Your task to perform on an android device: open app "Pluto TV - Live TV and Movies" (install if not already installed) and go to login screen Image 0: 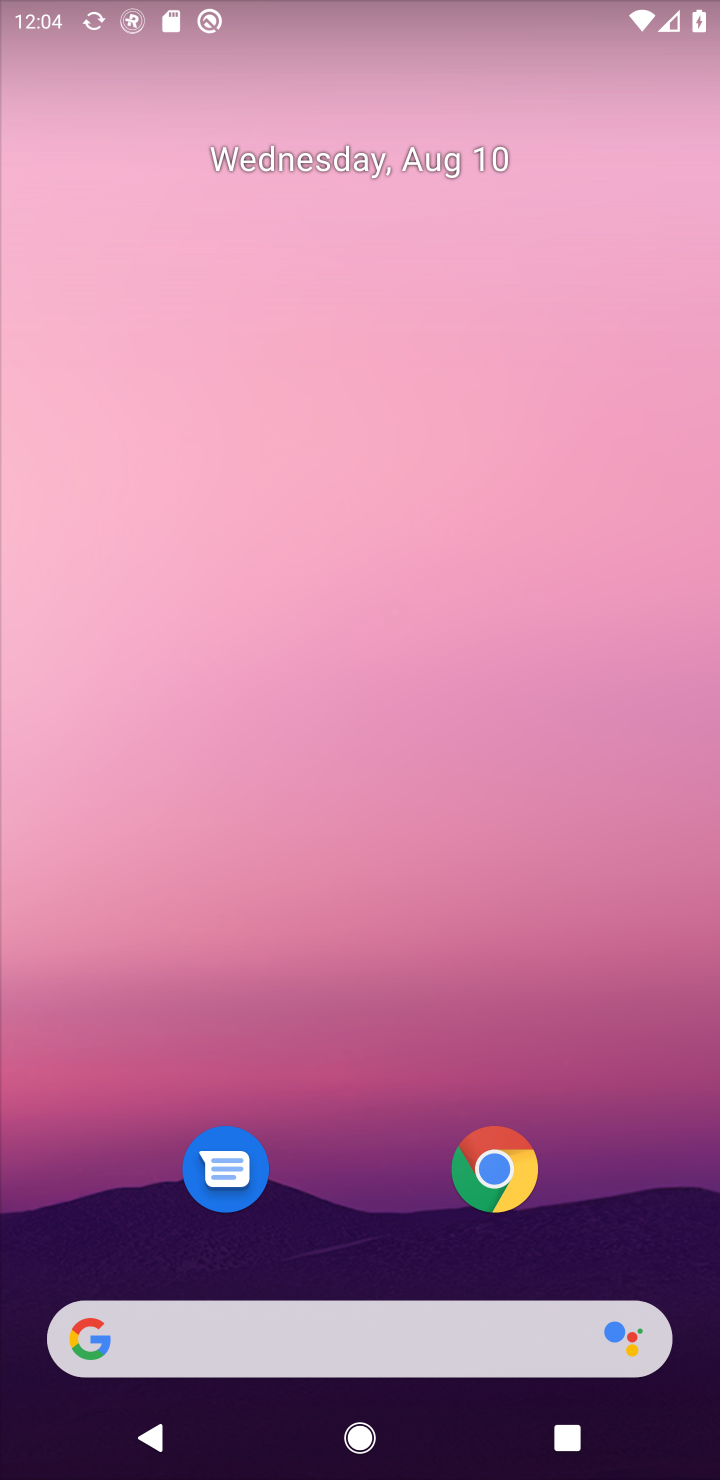
Step 0: press home button
Your task to perform on an android device: open app "Pluto TV - Live TV and Movies" (install if not already installed) and go to login screen Image 1: 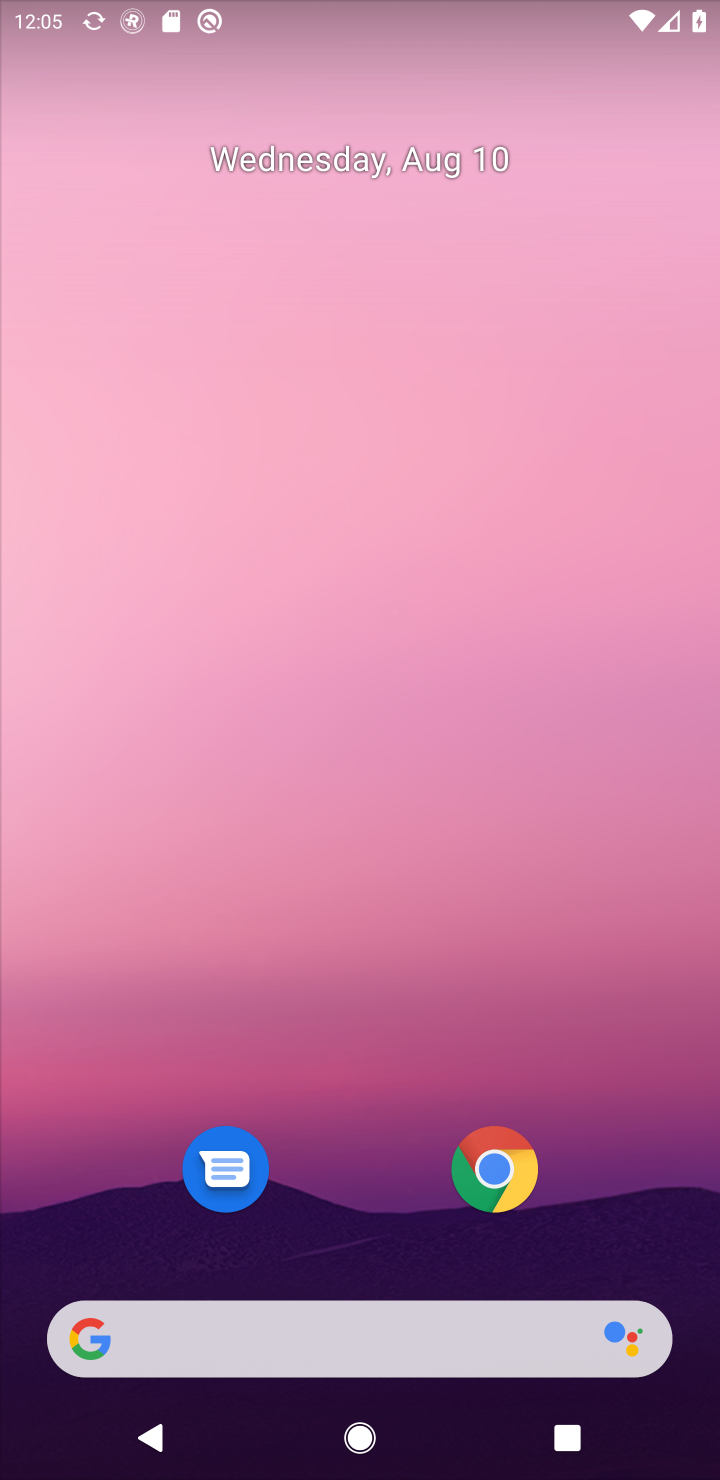
Step 1: drag from (658, 976) to (647, 121)
Your task to perform on an android device: open app "Pluto TV - Live TV and Movies" (install if not already installed) and go to login screen Image 2: 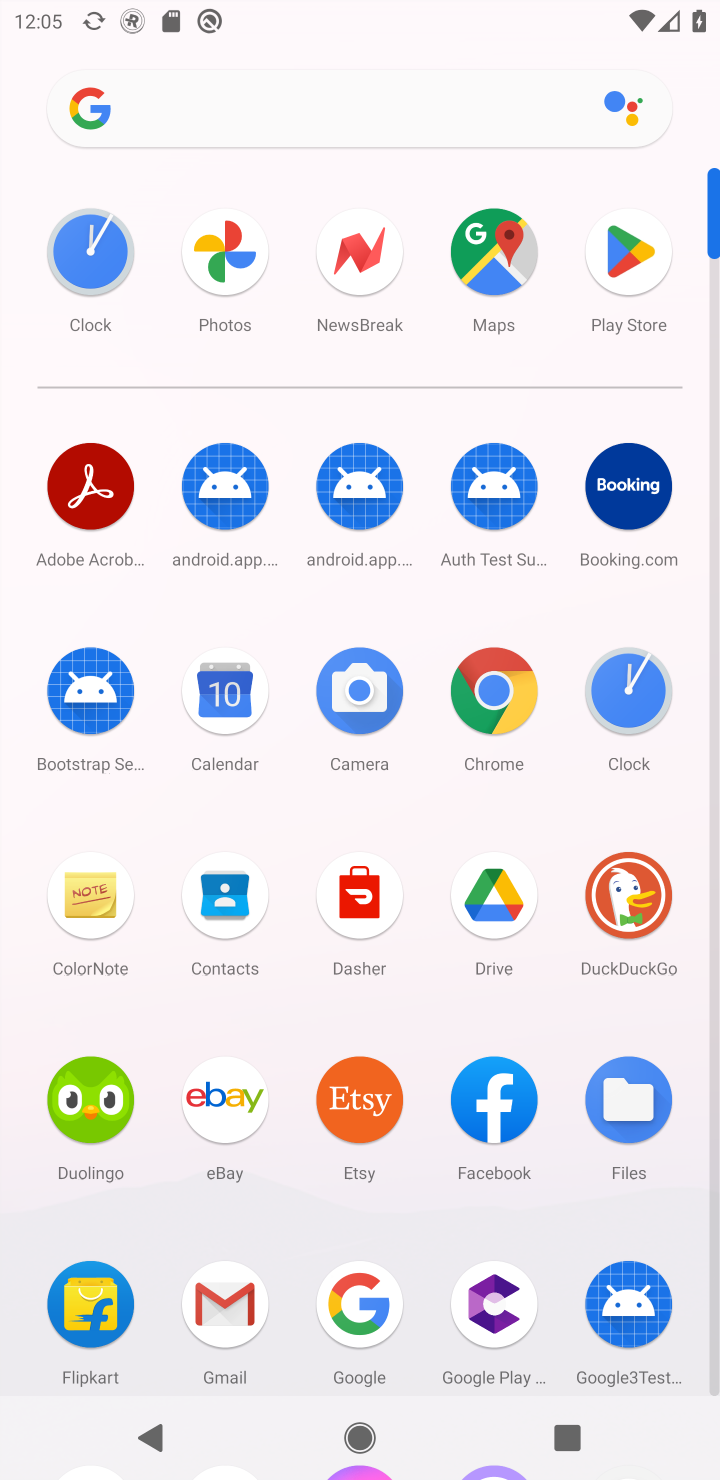
Step 2: click (626, 243)
Your task to perform on an android device: open app "Pluto TV - Live TV and Movies" (install if not already installed) and go to login screen Image 3: 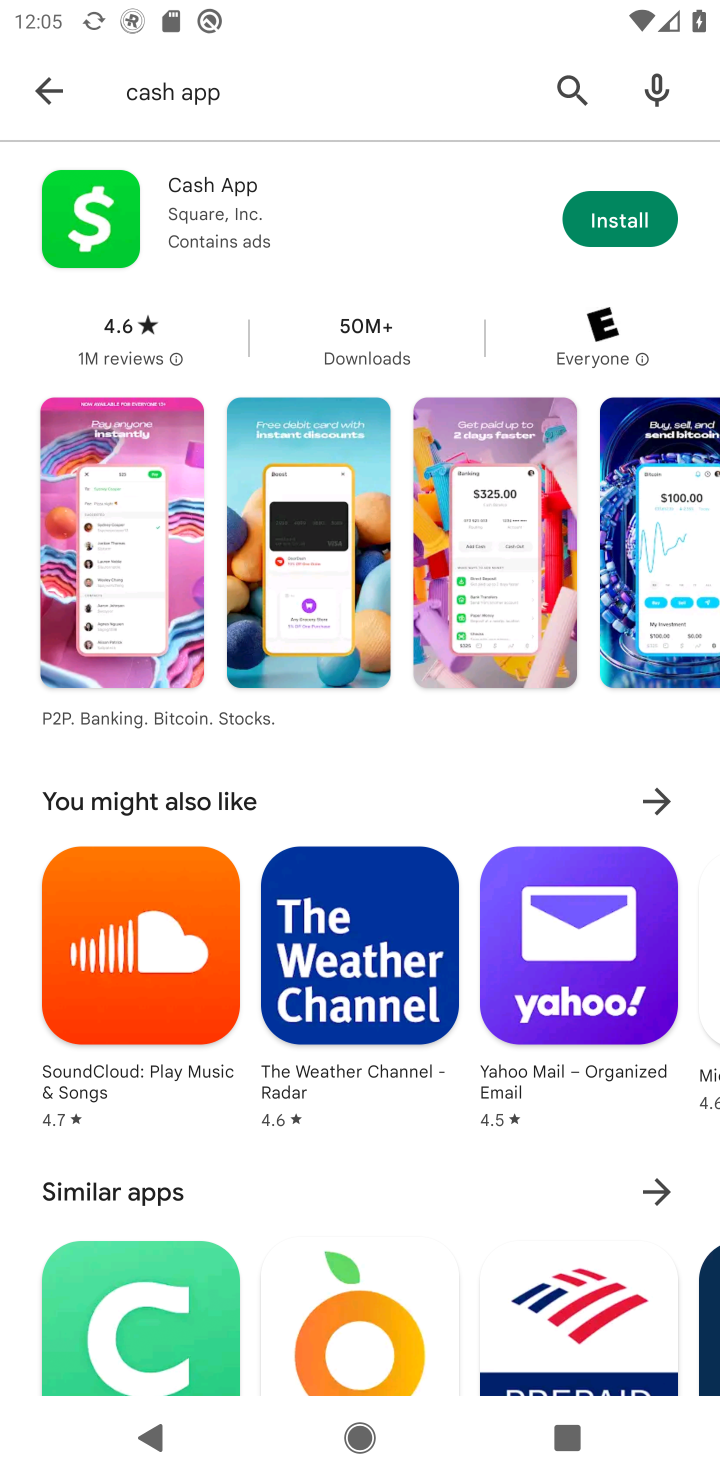
Step 3: click (563, 77)
Your task to perform on an android device: open app "Pluto TV - Live TV and Movies" (install if not already installed) and go to login screen Image 4: 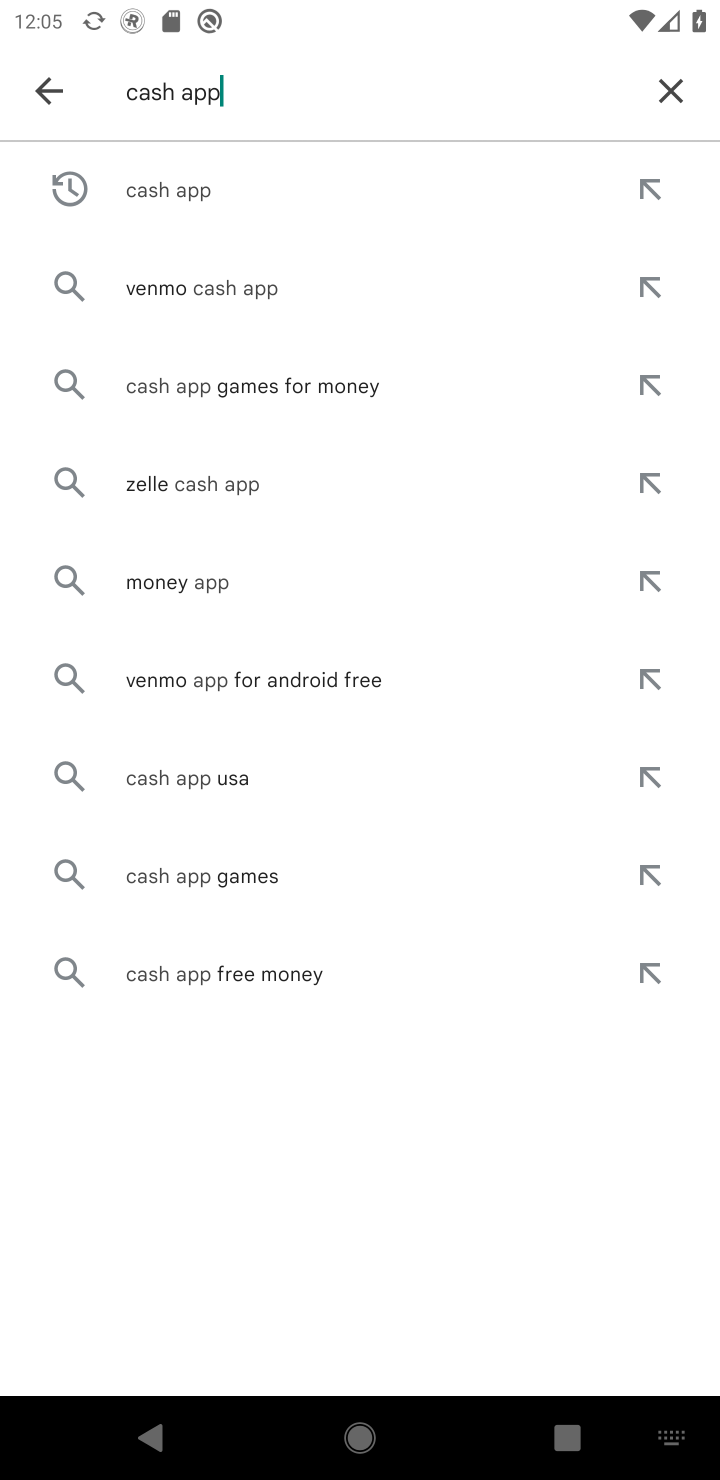
Step 4: click (677, 93)
Your task to perform on an android device: open app "Pluto TV - Live TV and Movies" (install if not already installed) and go to login screen Image 5: 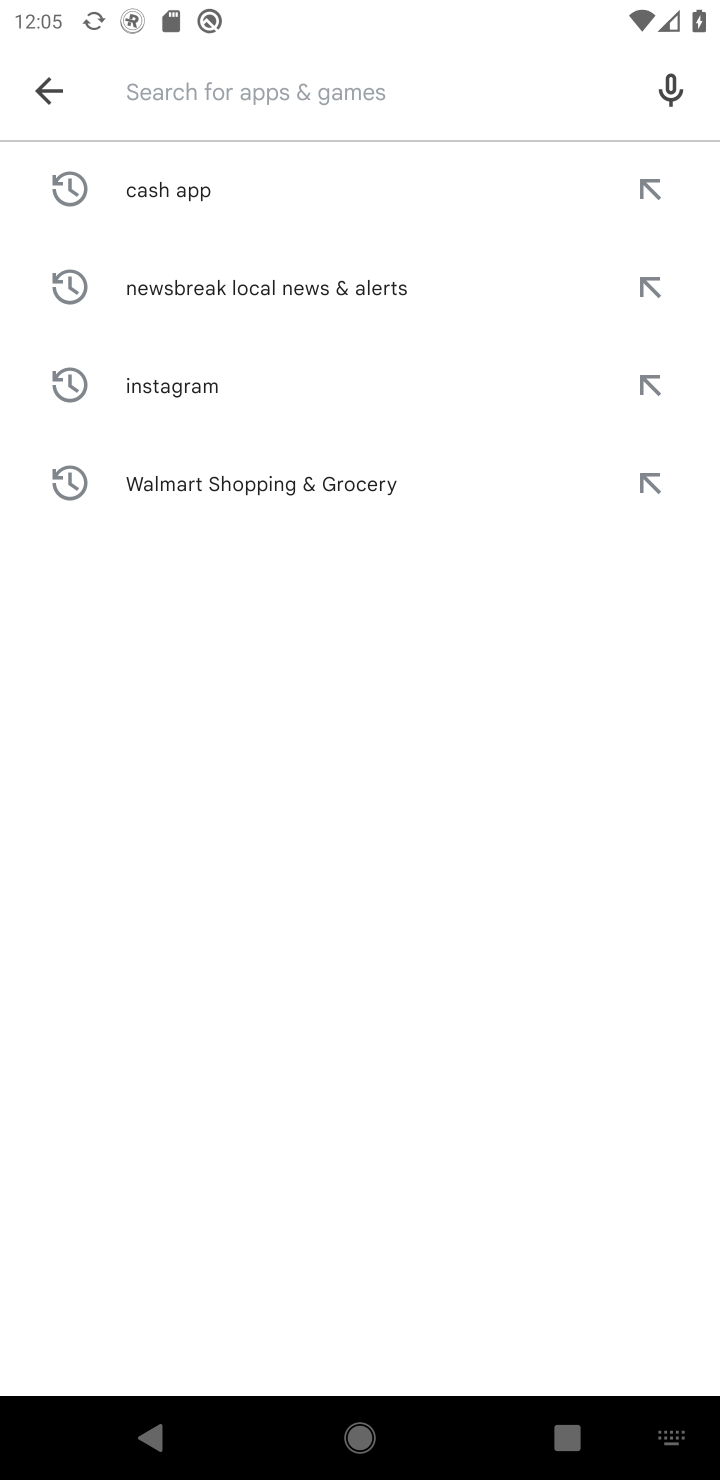
Step 5: press enter
Your task to perform on an android device: open app "Pluto TV - Live TV and Movies" (install if not already installed) and go to login screen Image 6: 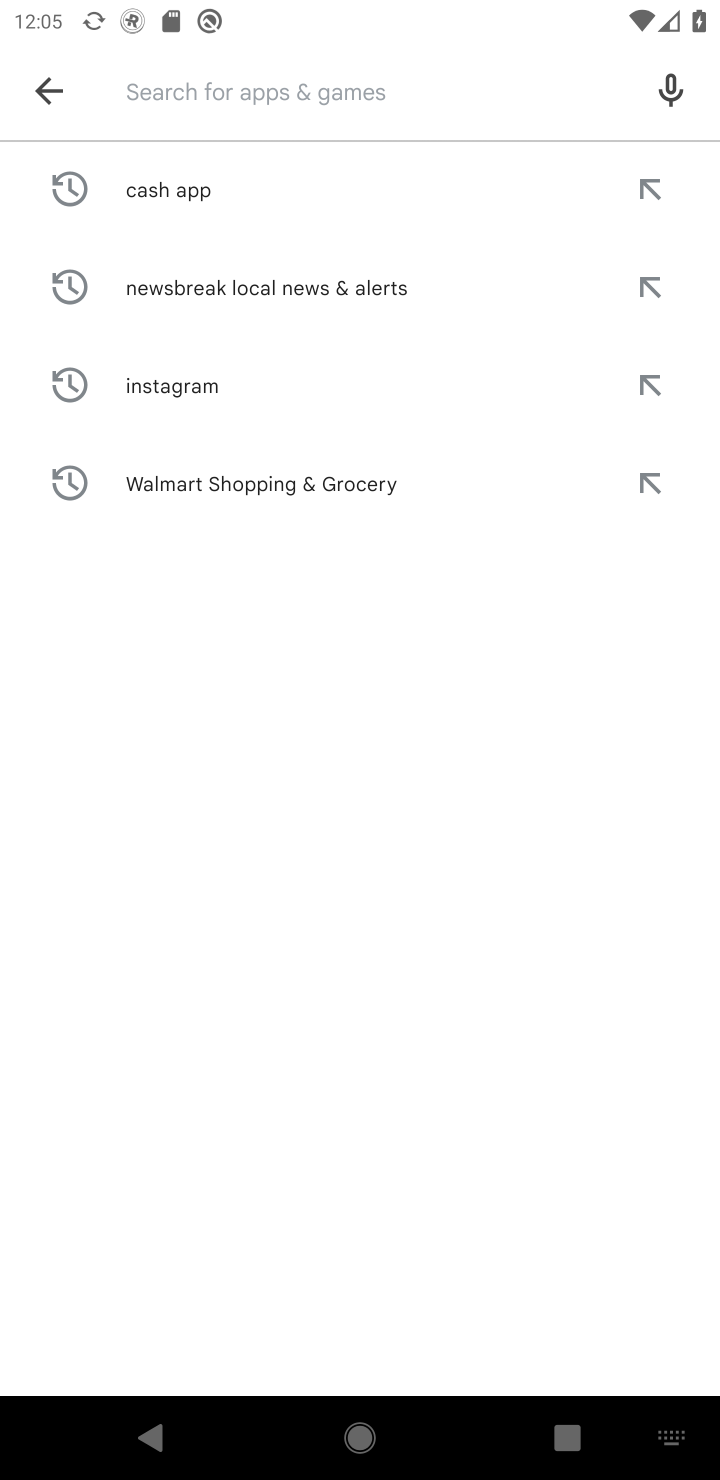
Step 6: type "Pluto TV - Live TV and Movies"
Your task to perform on an android device: open app "Pluto TV - Live TV and Movies" (install if not already installed) and go to login screen Image 7: 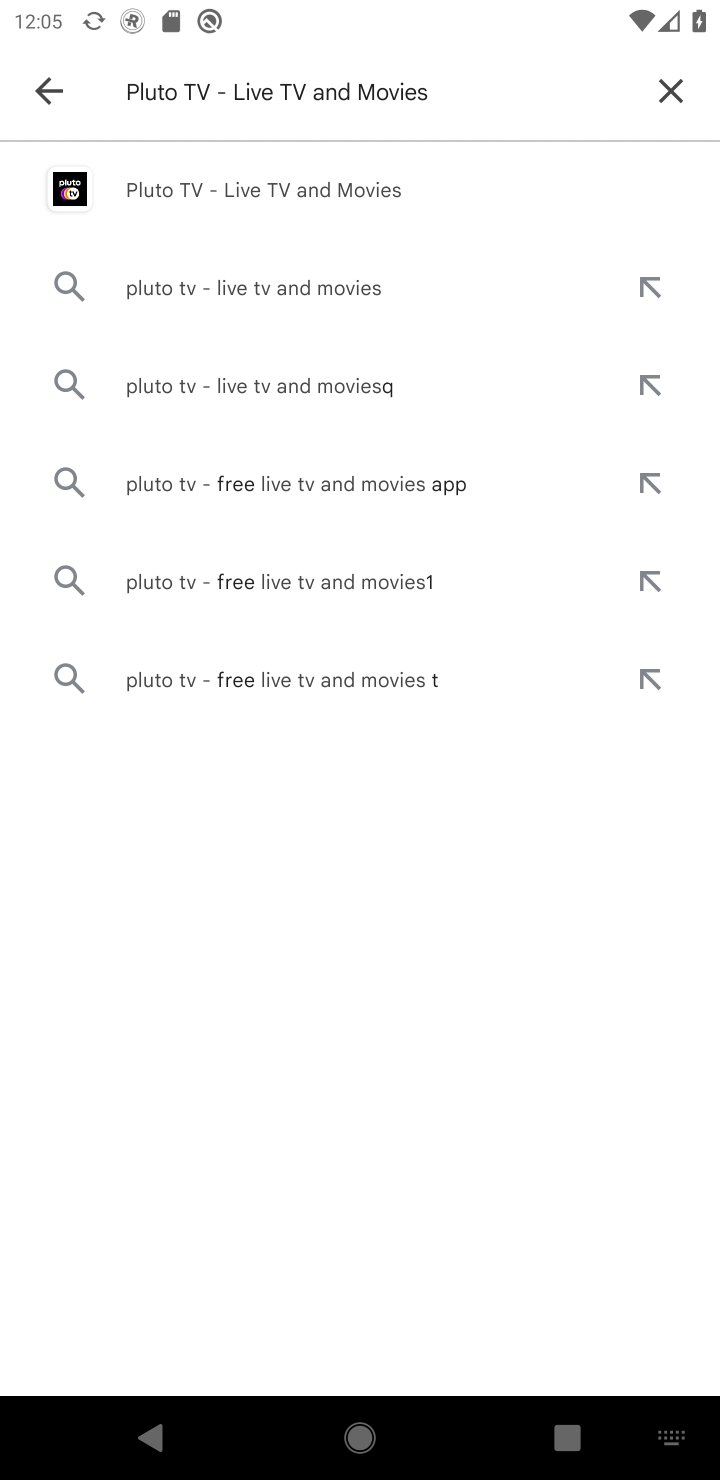
Step 7: click (321, 189)
Your task to perform on an android device: open app "Pluto TV - Live TV and Movies" (install if not already installed) and go to login screen Image 8: 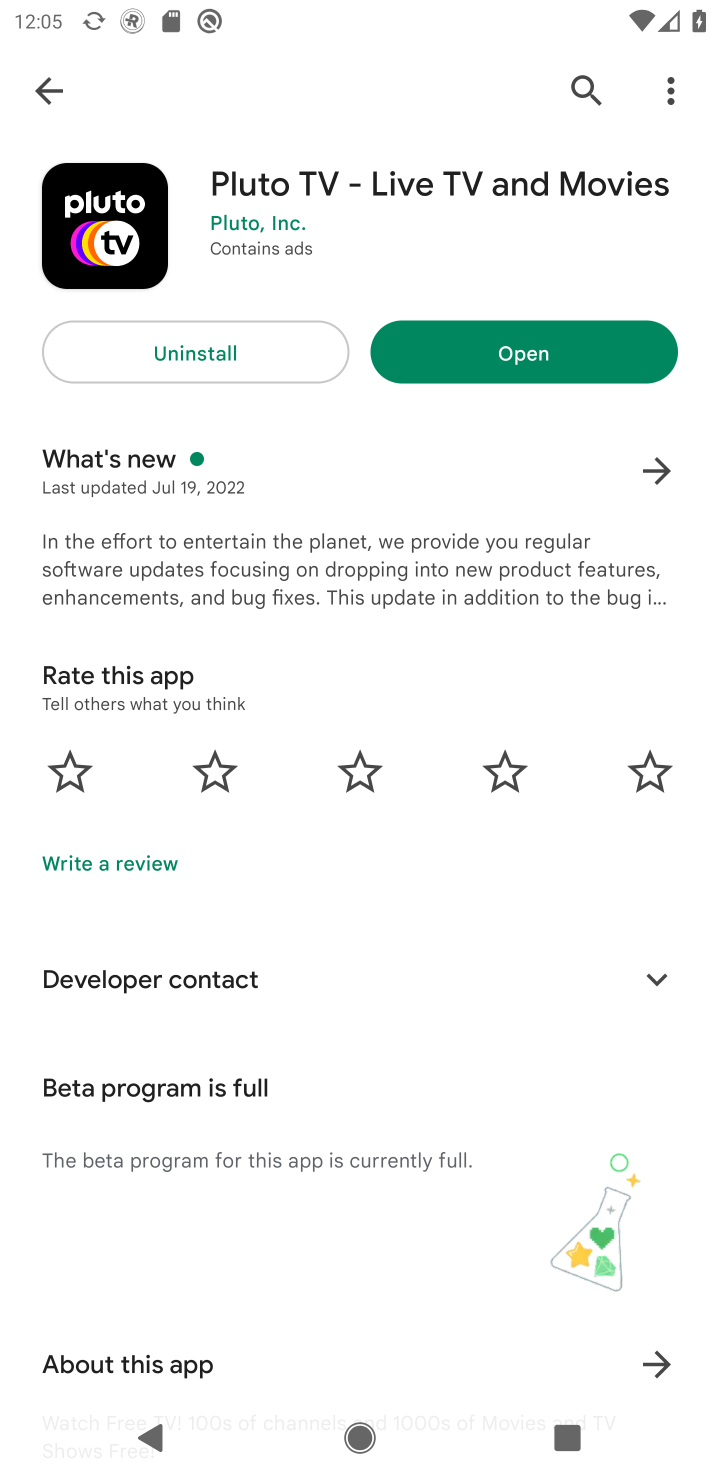
Step 8: click (576, 349)
Your task to perform on an android device: open app "Pluto TV - Live TV and Movies" (install if not already installed) and go to login screen Image 9: 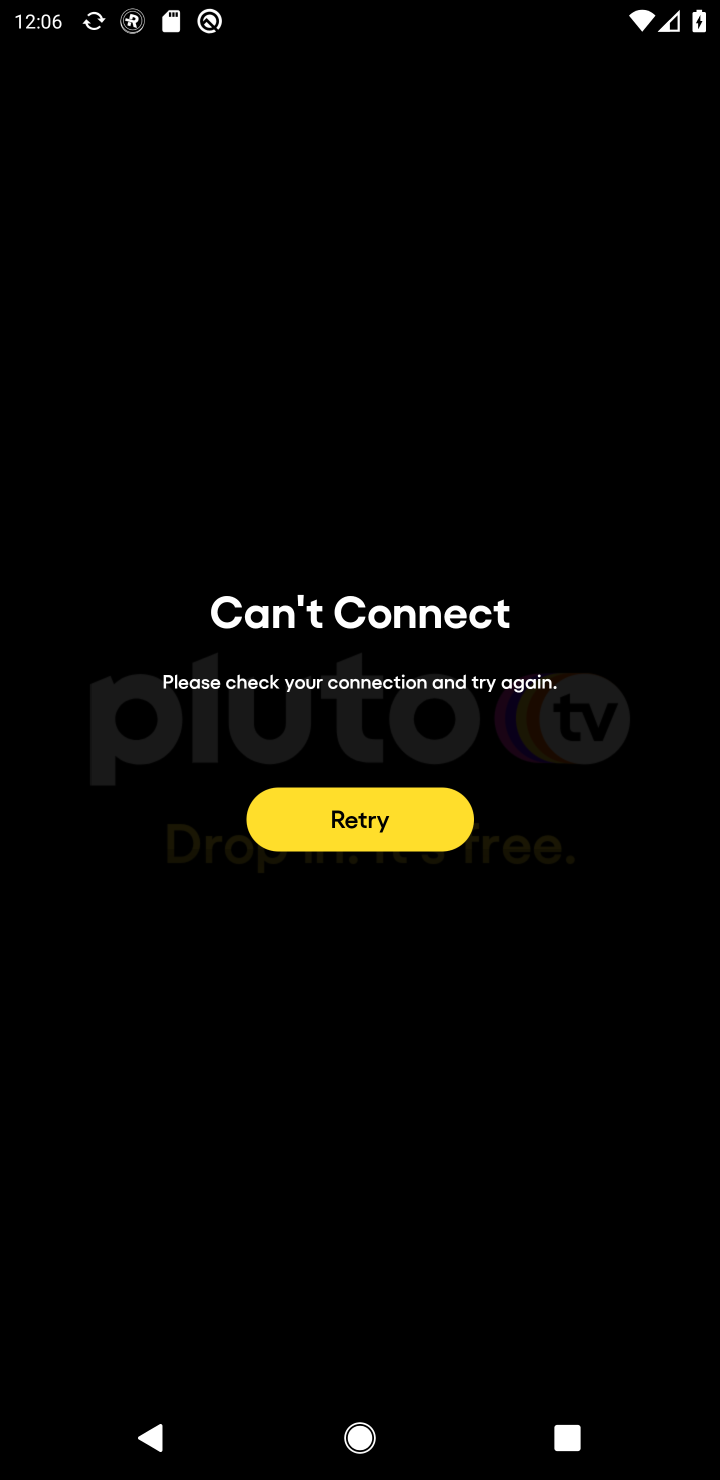
Step 9: click (418, 830)
Your task to perform on an android device: open app "Pluto TV - Live TV and Movies" (install if not already installed) and go to login screen Image 10: 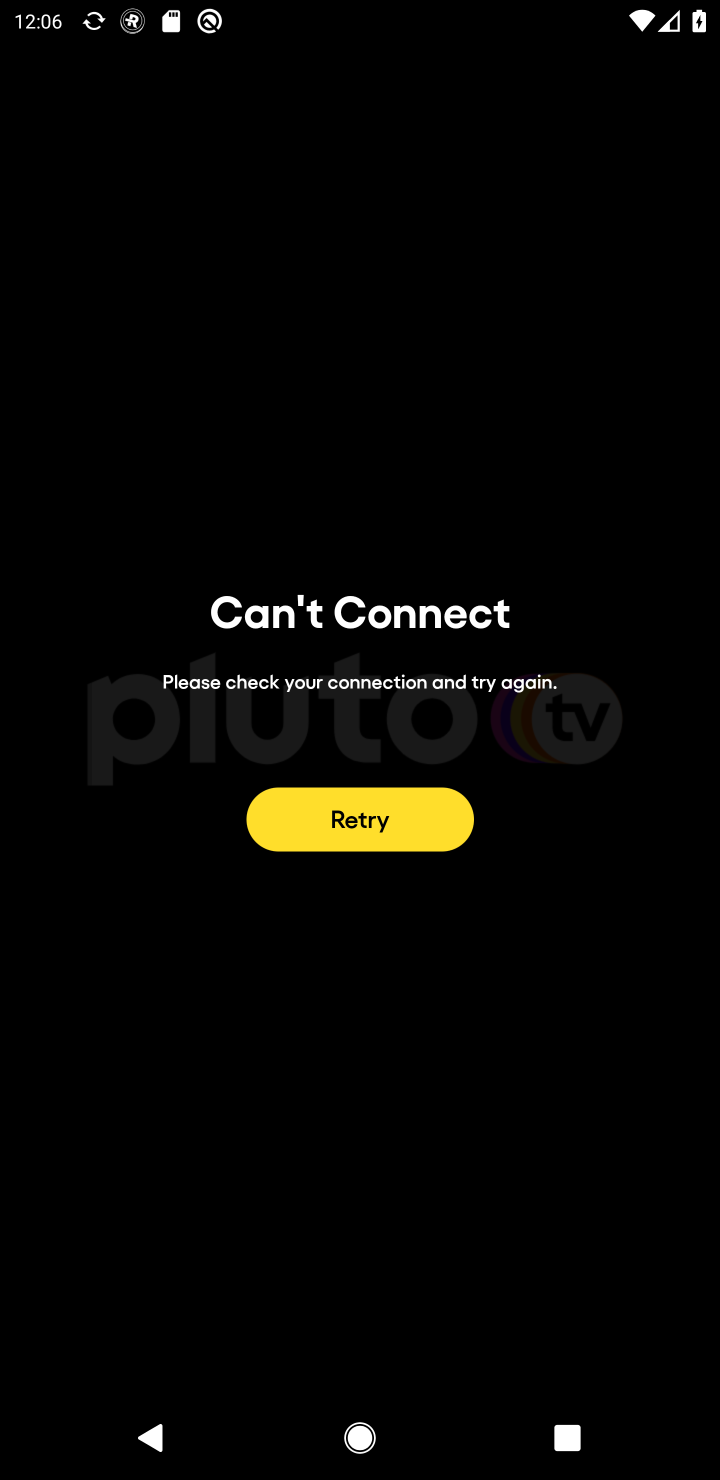
Step 10: task complete